Your task to perform on an android device: check out phone information Image 0: 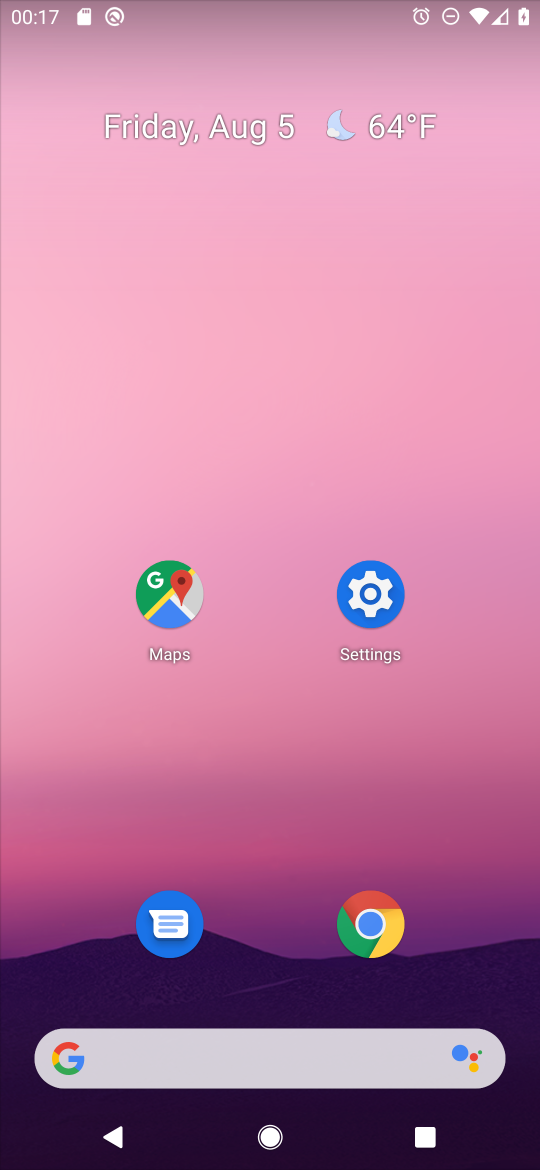
Step 0: click (368, 603)
Your task to perform on an android device: check out phone information Image 1: 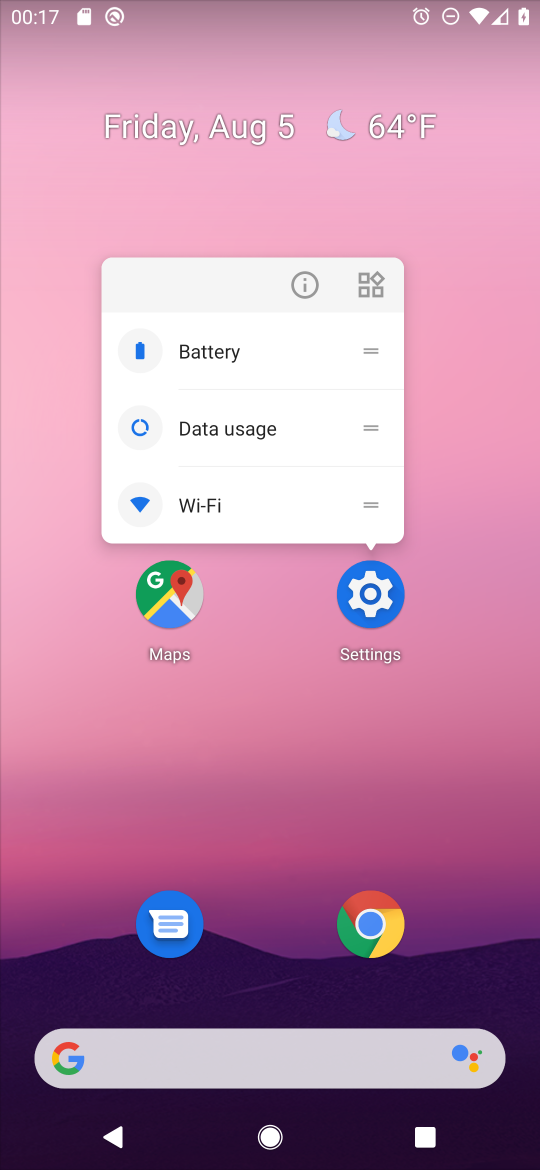
Step 1: click (367, 597)
Your task to perform on an android device: check out phone information Image 2: 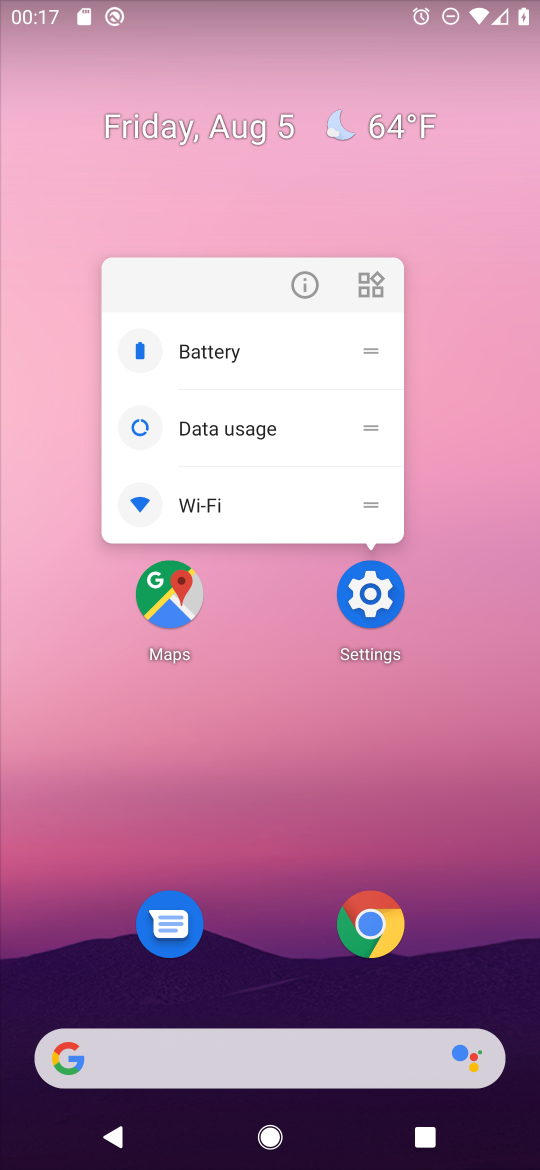
Step 2: click (367, 599)
Your task to perform on an android device: check out phone information Image 3: 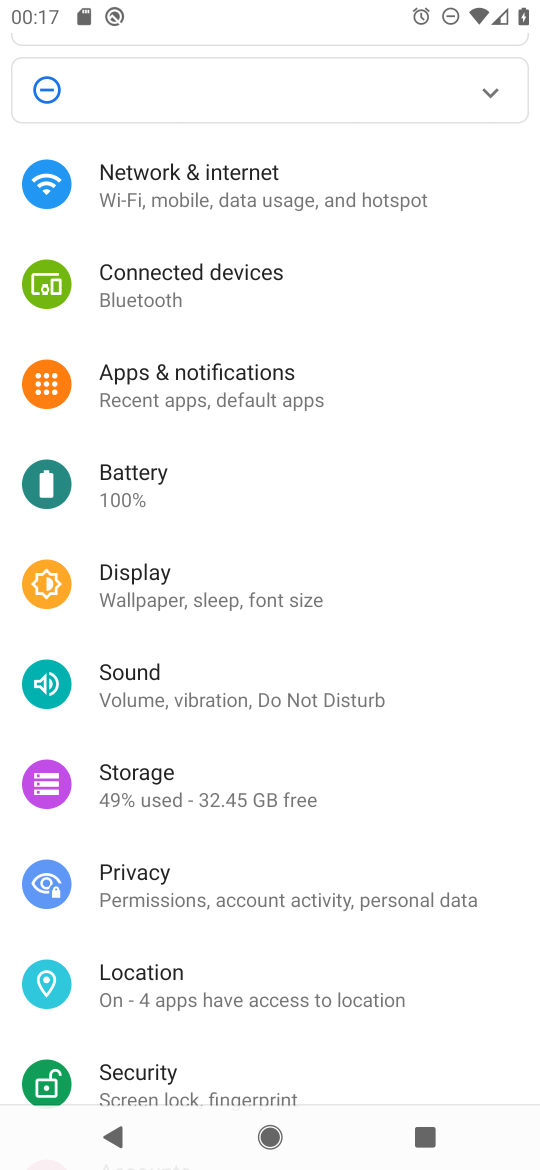
Step 3: drag from (308, 1061) to (535, 177)
Your task to perform on an android device: check out phone information Image 4: 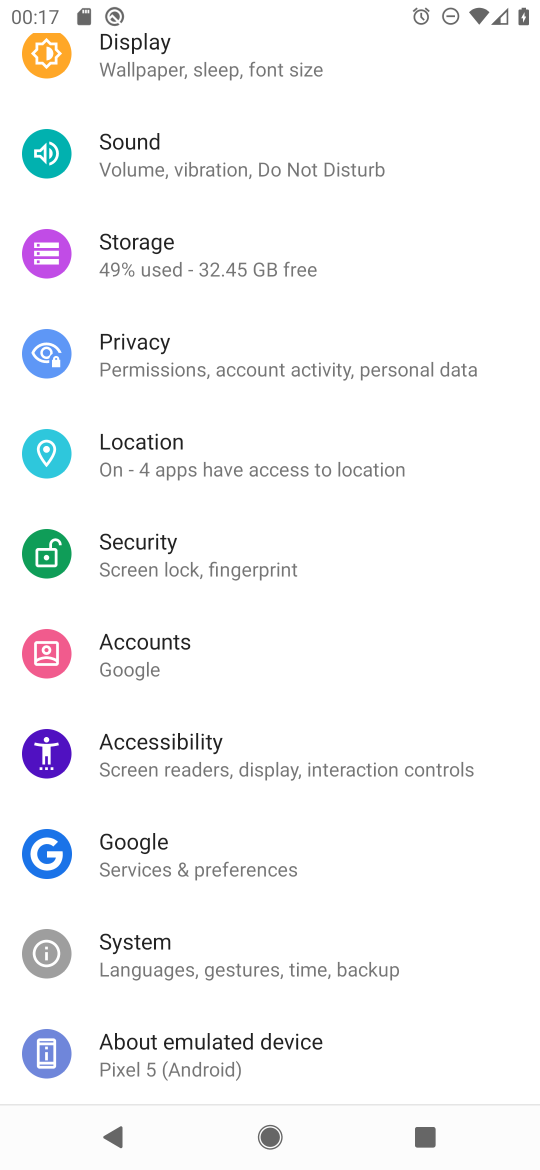
Step 4: click (222, 1041)
Your task to perform on an android device: check out phone information Image 5: 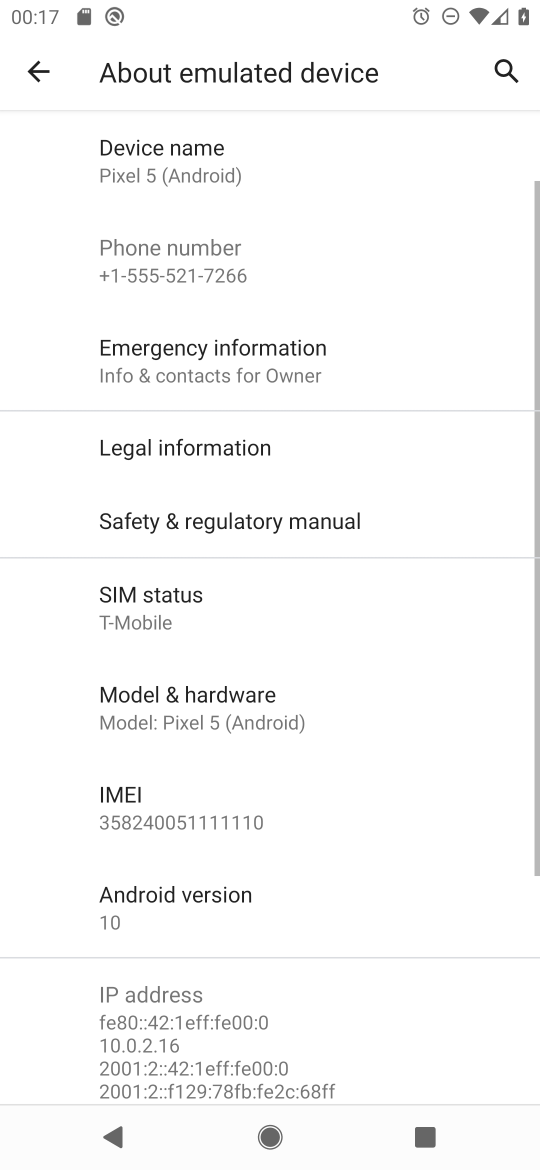
Step 5: task complete